Your task to perform on an android device: turn off notifications settings in the gmail app Image 0: 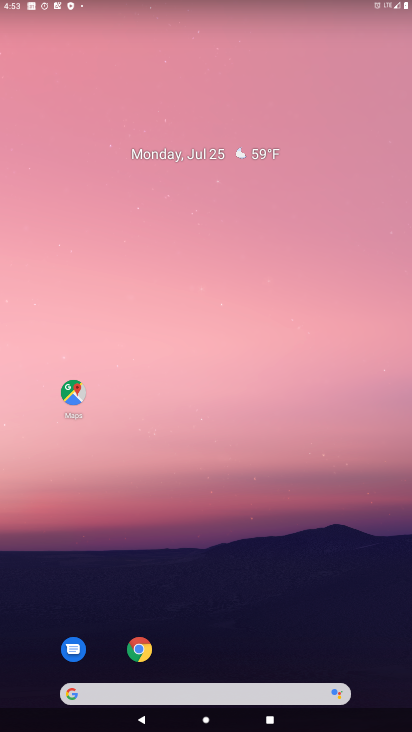
Step 0: drag from (300, 654) to (213, 111)
Your task to perform on an android device: turn off notifications settings in the gmail app Image 1: 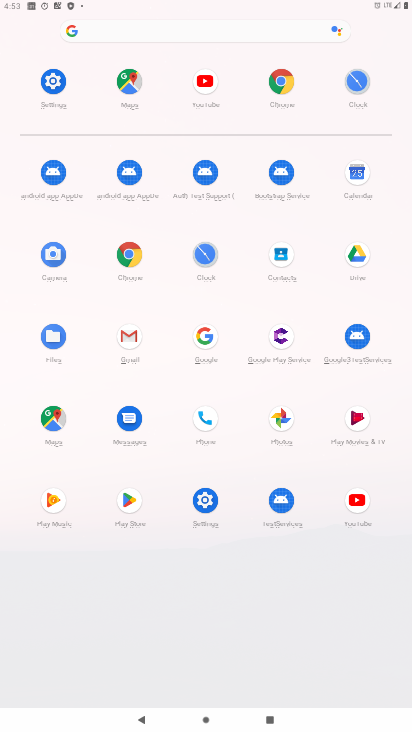
Step 1: click (130, 352)
Your task to perform on an android device: turn off notifications settings in the gmail app Image 2: 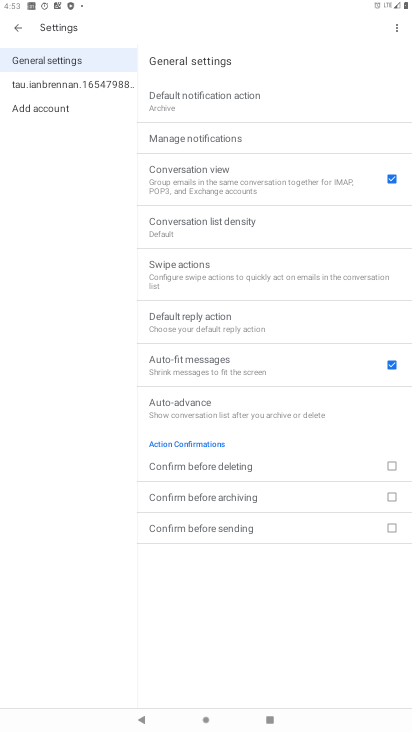
Step 2: click (70, 90)
Your task to perform on an android device: turn off notifications settings in the gmail app Image 3: 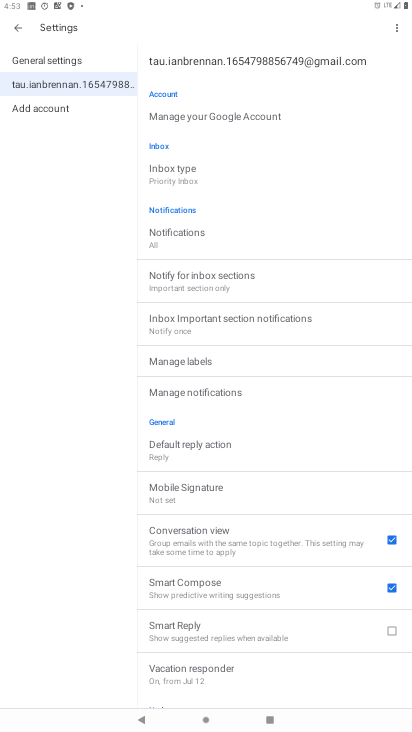
Step 3: click (271, 396)
Your task to perform on an android device: turn off notifications settings in the gmail app Image 4: 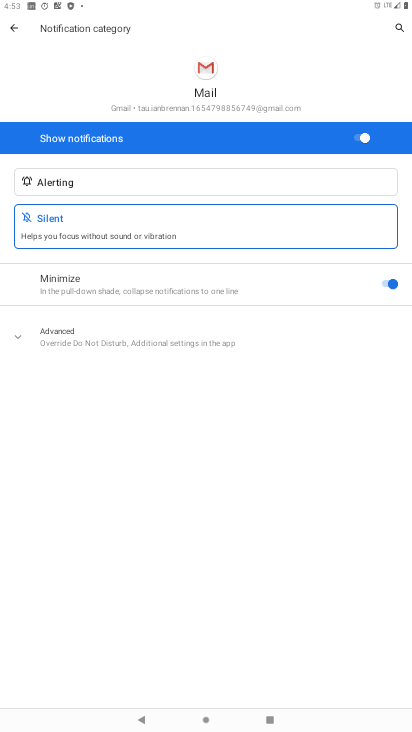
Step 4: click (388, 285)
Your task to perform on an android device: turn off notifications settings in the gmail app Image 5: 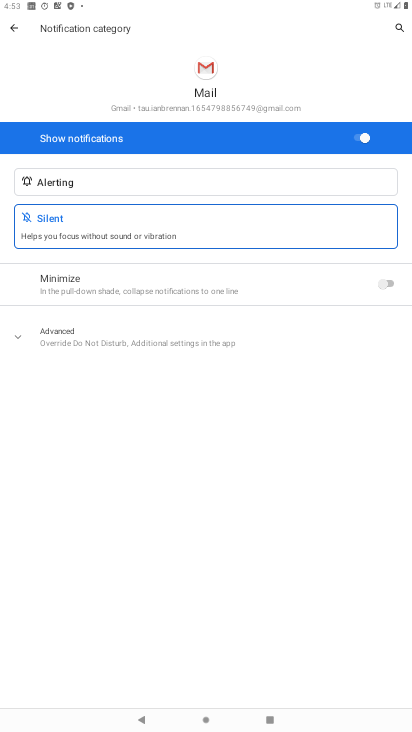
Step 5: task complete